Your task to perform on an android device: change the clock display to show seconds Image 0: 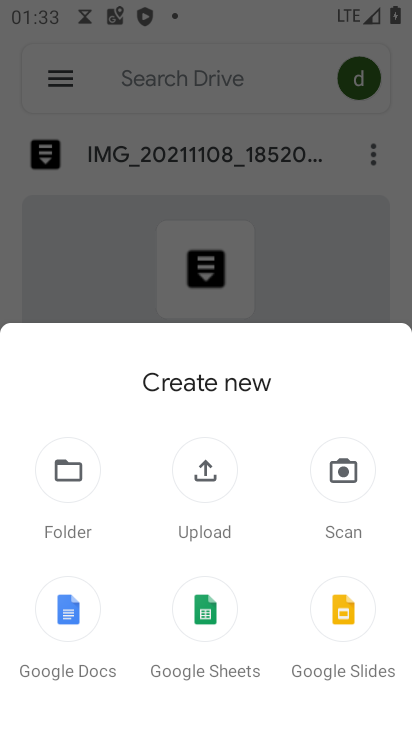
Step 0: press home button
Your task to perform on an android device: change the clock display to show seconds Image 1: 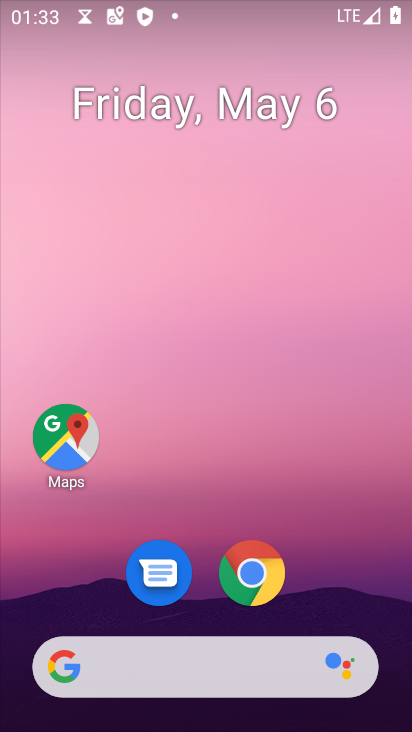
Step 1: drag from (339, 601) to (351, 239)
Your task to perform on an android device: change the clock display to show seconds Image 2: 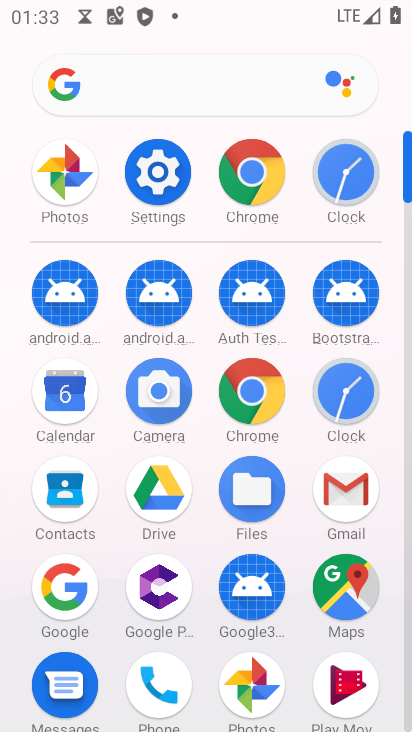
Step 2: click (341, 398)
Your task to perform on an android device: change the clock display to show seconds Image 3: 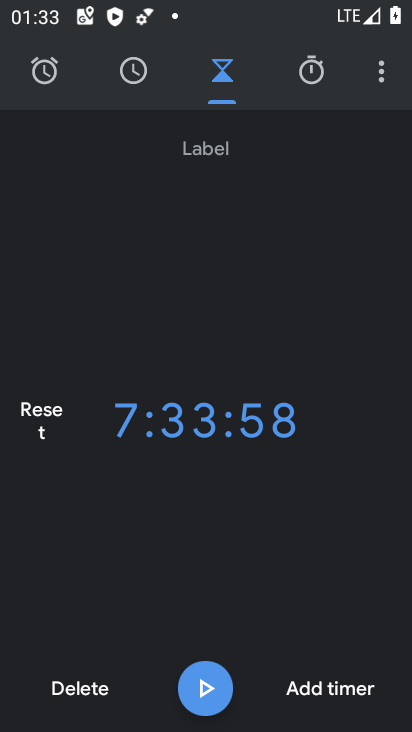
Step 3: click (372, 70)
Your task to perform on an android device: change the clock display to show seconds Image 4: 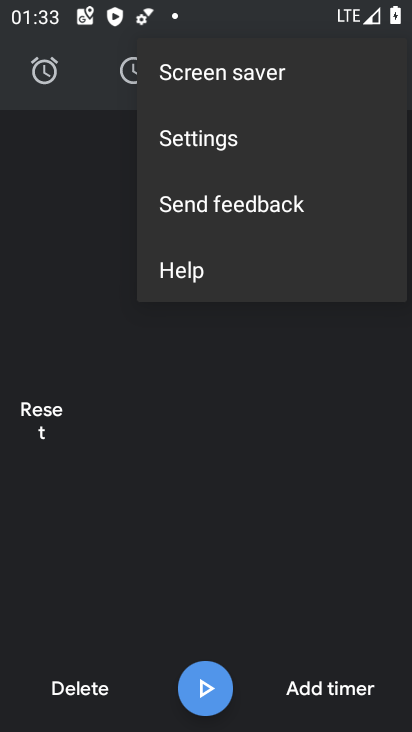
Step 4: click (228, 138)
Your task to perform on an android device: change the clock display to show seconds Image 5: 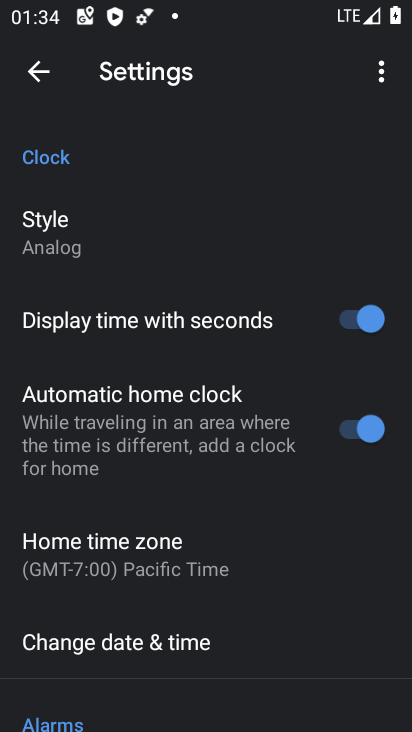
Step 5: task complete